Your task to perform on an android device: turn notification dots on Image 0: 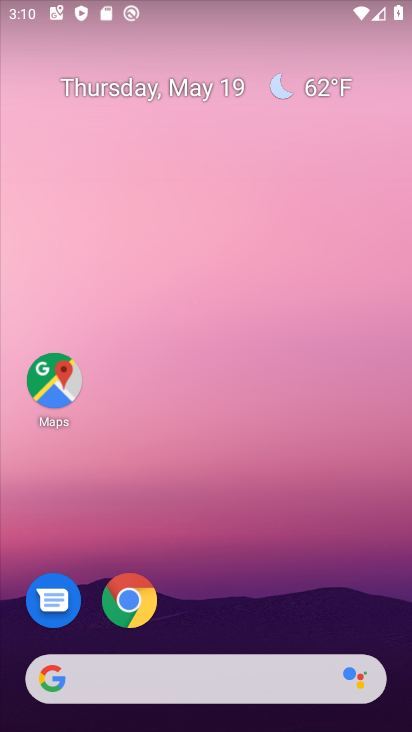
Step 0: drag from (78, 527) to (313, 127)
Your task to perform on an android device: turn notification dots on Image 1: 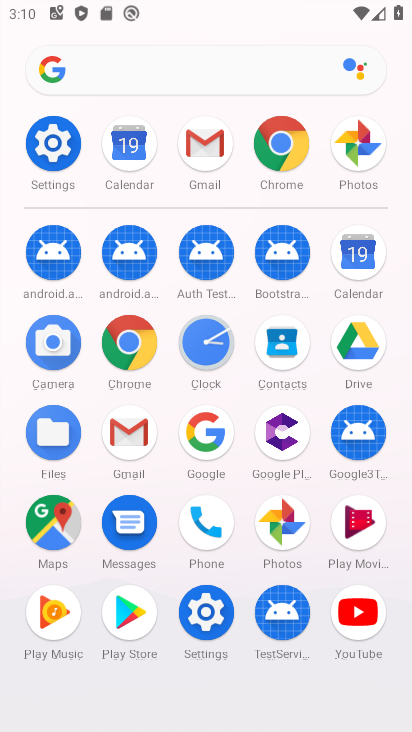
Step 1: click (58, 144)
Your task to perform on an android device: turn notification dots on Image 2: 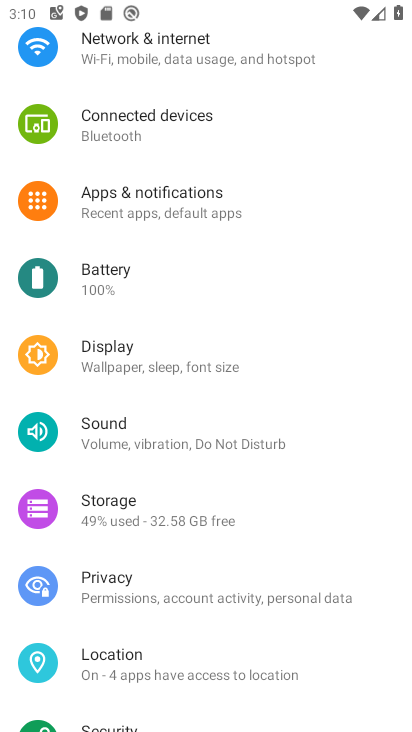
Step 2: drag from (207, 65) to (167, 428)
Your task to perform on an android device: turn notification dots on Image 3: 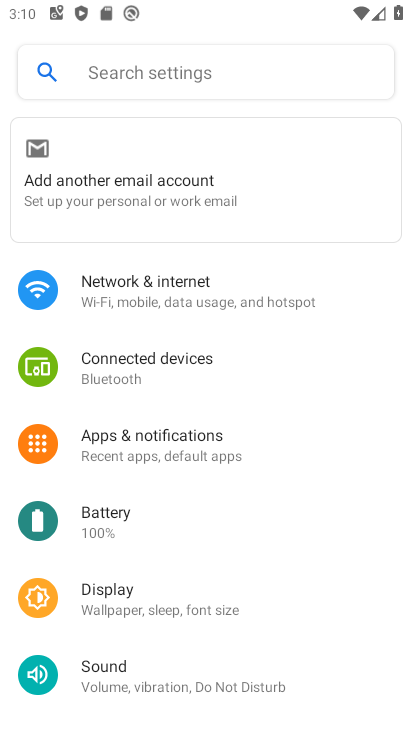
Step 3: click (145, 419)
Your task to perform on an android device: turn notification dots on Image 4: 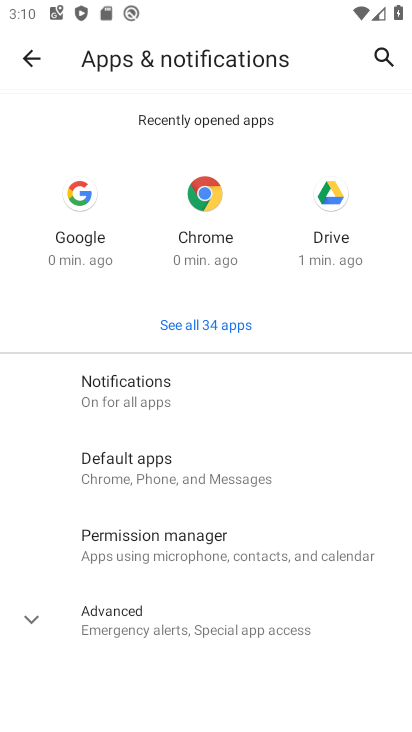
Step 4: click (206, 413)
Your task to perform on an android device: turn notification dots on Image 5: 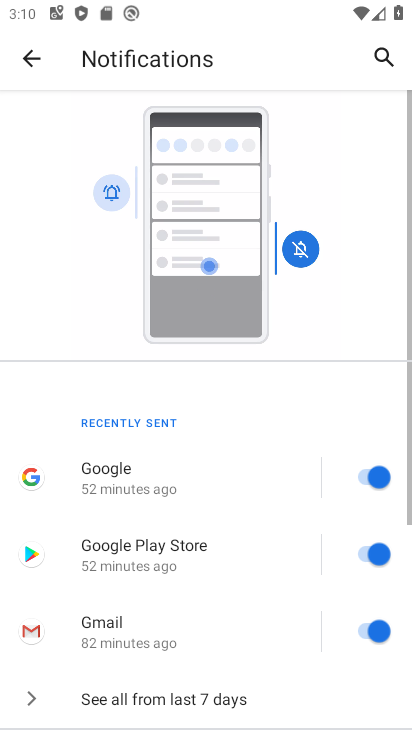
Step 5: drag from (19, 647) to (241, 226)
Your task to perform on an android device: turn notification dots on Image 6: 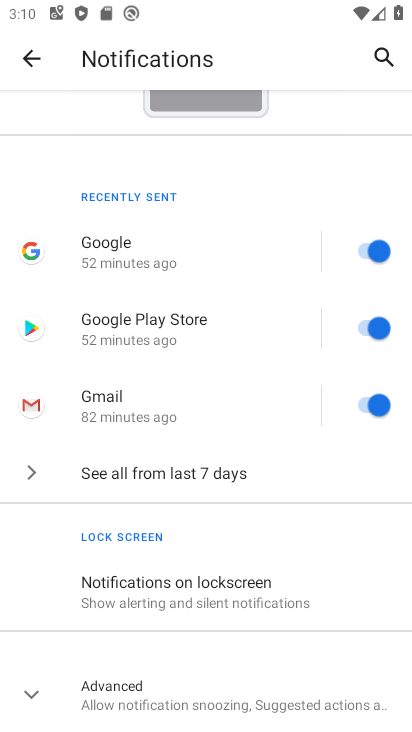
Step 6: click (203, 691)
Your task to perform on an android device: turn notification dots on Image 7: 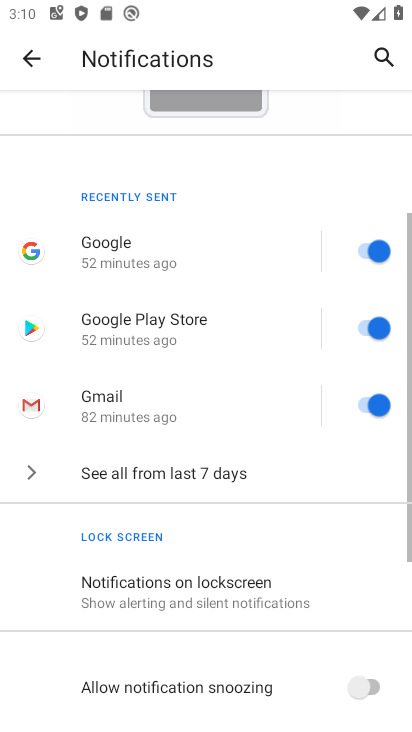
Step 7: drag from (37, 591) to (312, 187)
Your task to perform on an android device: turn notification dots on Image 8: 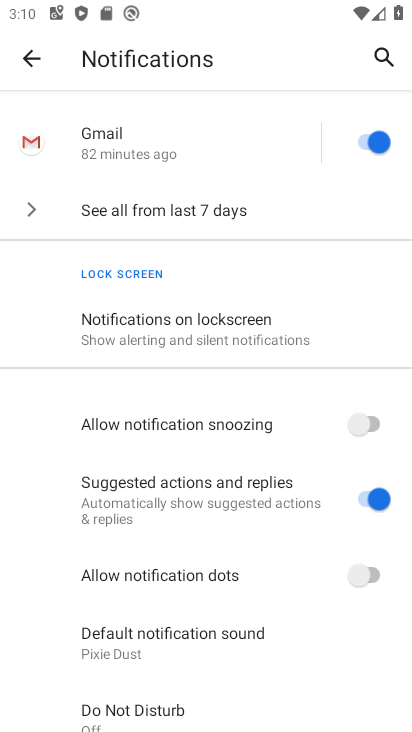
Step 8: click (352, 585)
Your task to perform on an android device: turn notification dots on Image 9: 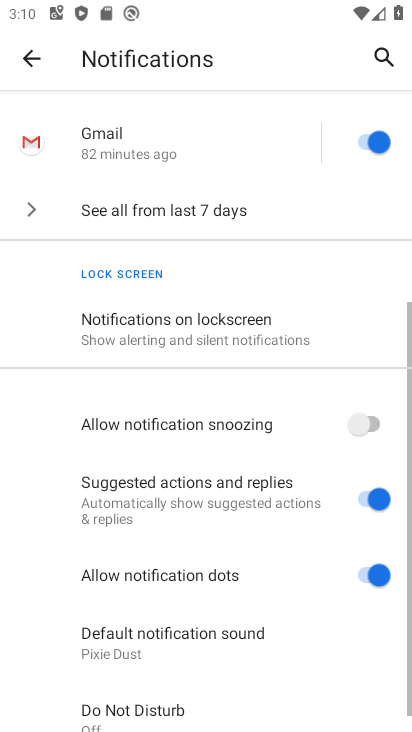
Step 9: task complete